Your task to perform on an android device: toggle notification dots Image 0: 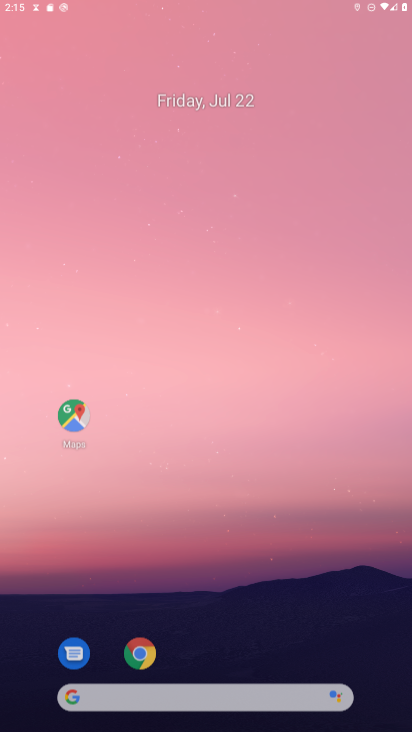
Step 0: drag from (261, 589) to (244, 0)
Your task to perform on an android device: toggle notification dots Image 1: 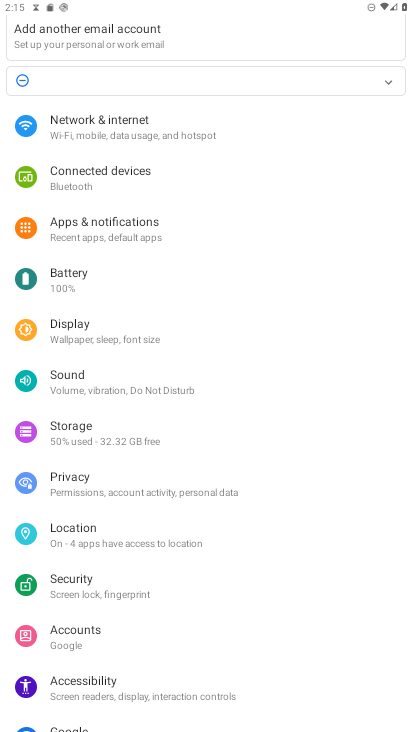
Step 1: click (150, 227)
Your task to perform on an android device: toggle notification dots Image 2: 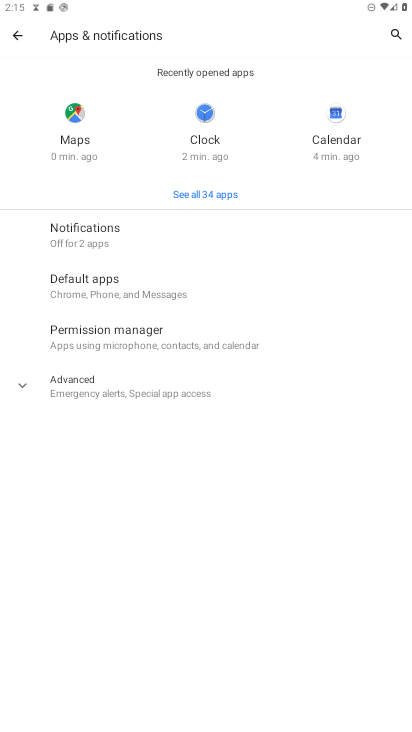
Step 2: click (95, 235)
Your task to perform on an android device: toggle notification dots Image 3: 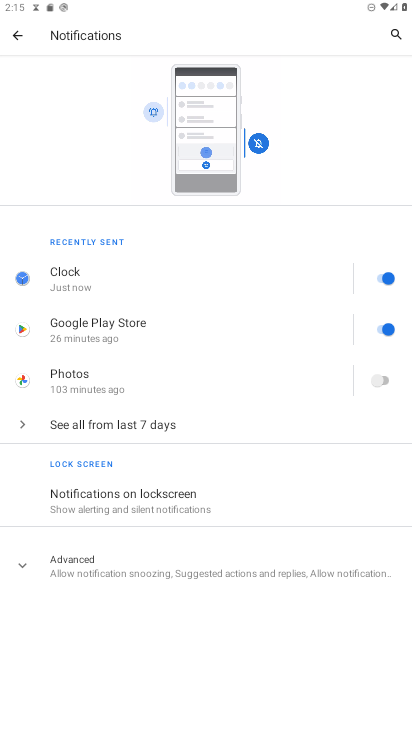
Step 3: click (168, 567)
Your task to perform on an android device: toggle notification dots Image 4: 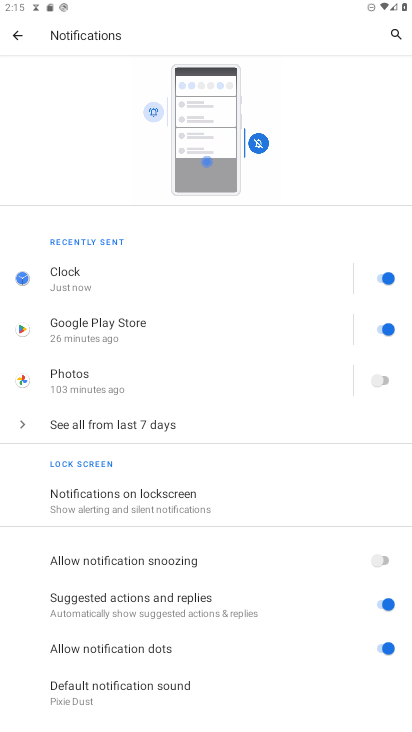
Step 4: drag from (253, 678) to (251, 255)
Your task to perform on an android device: toggle notification dots Image 5: 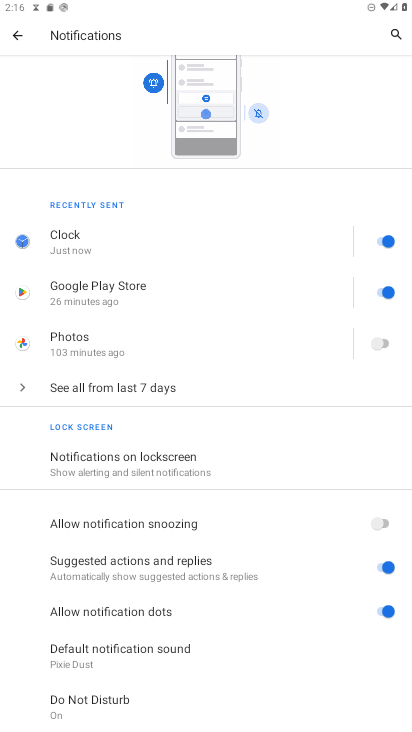
Step 5: click (387, 609)
Your task to perform on an android device: toggle notification dots Image 6: 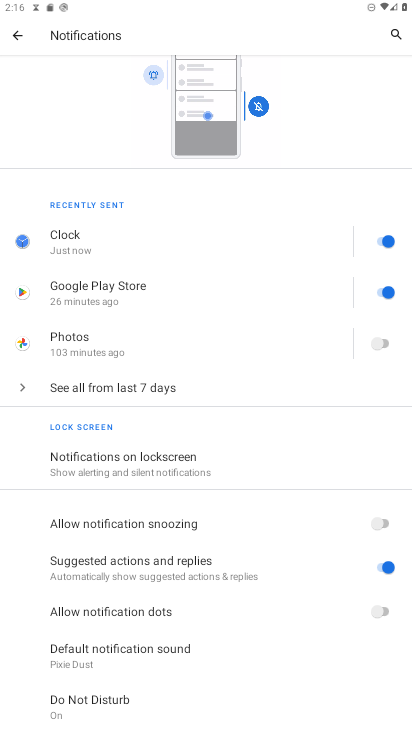
Step 6: task complete